Your task to perform on an android device: check google app version Image 0: 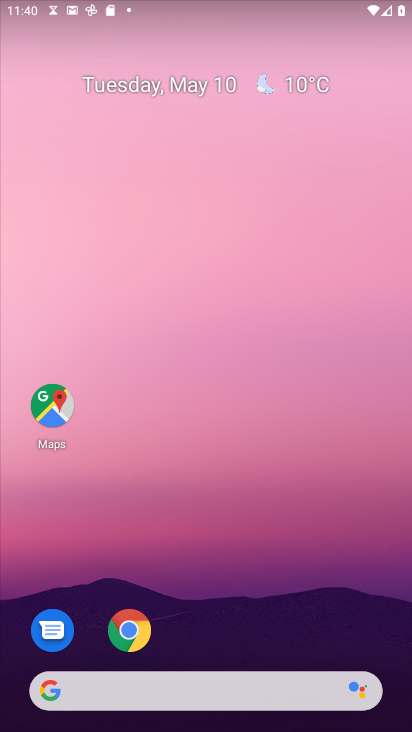
Step 0: click (43, 696)
Your task to perform on an android device: check google app version Image 1: 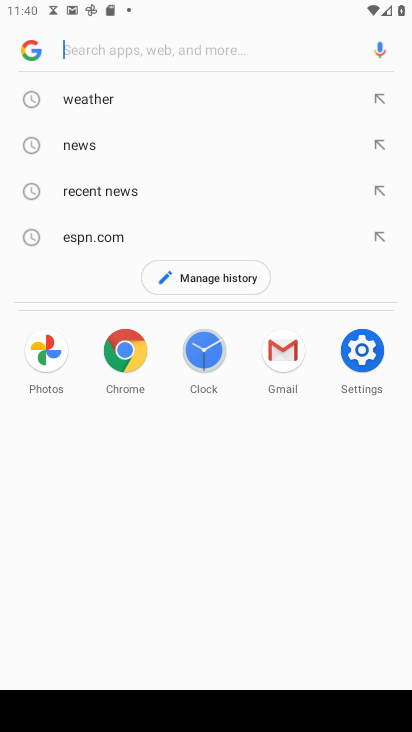
Step 1: click (24, 43)
Your task to perform on an android device: check google app version Image 2: 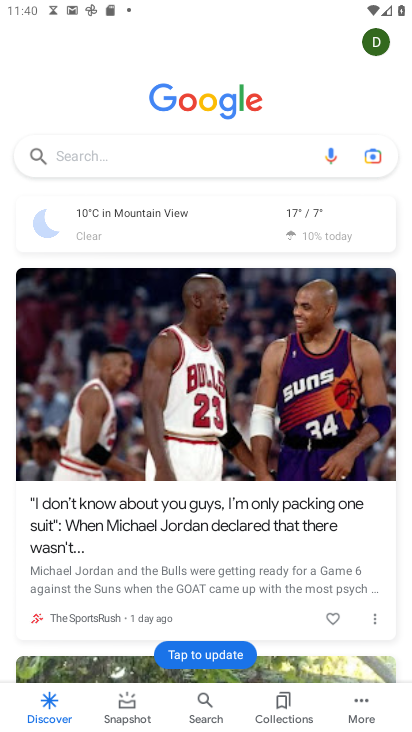
Step 2: click (363, 692)
Your task to perform on an android device: check google app version Image 3: 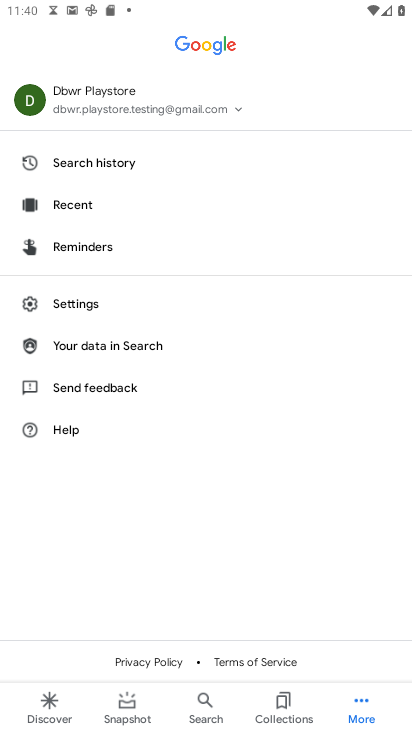
Step 3: click (201, 47)
Your task to perform on an android device: check google app version Image 4: 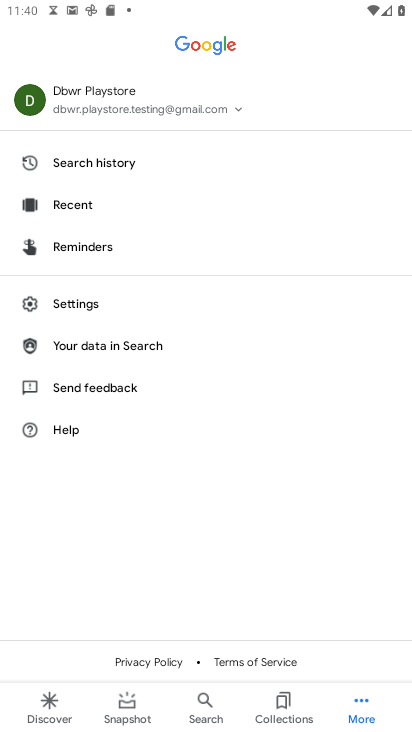
Step 4: click (201, 48)
Your task to perform on an android device: check google app version Image 5: 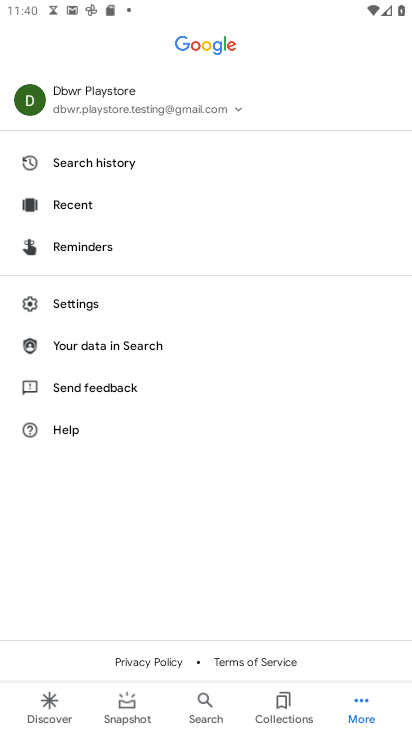
Step 5: click (201, 48)
Your task to perform on an android device: check google app version Image 6: 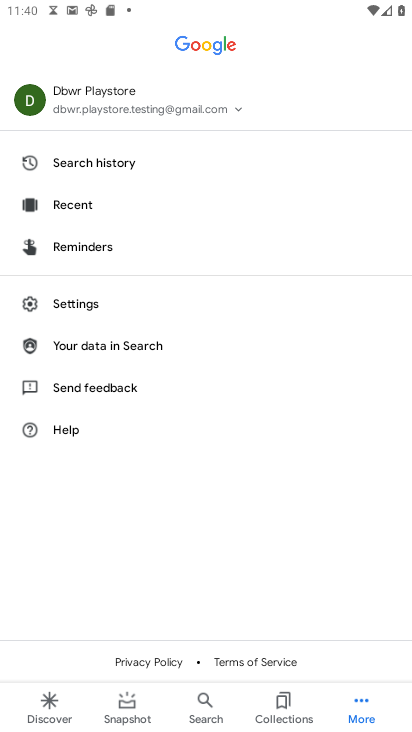
Step 6: click (89, 297)
Your task to perform on an android device: check google app version Image 7: 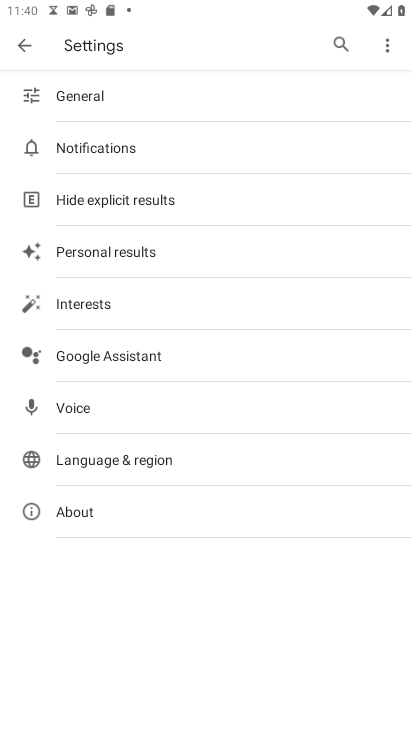
Step 7: click (145, 518)
Your task to perform on an android device: check google app version Image 8: 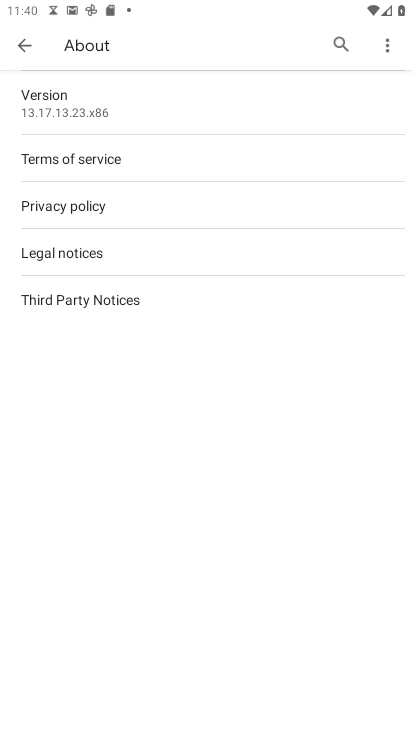
Step 8: click (85, 95)
Your task to perform on an android device: check google app version Image 9: 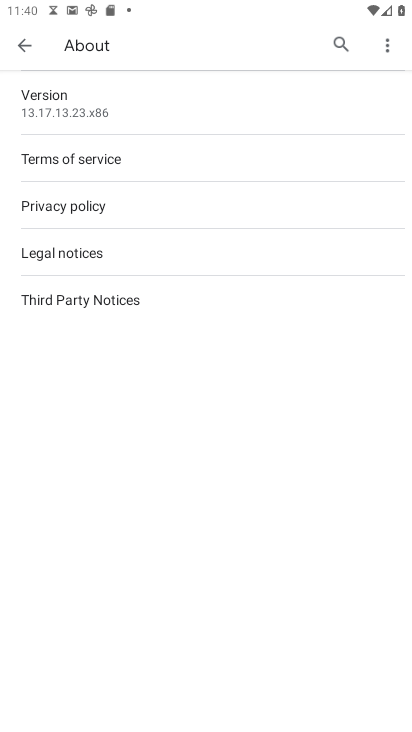
Step 9: task complete